Your task to perform on an android device: change the clock display to show seconds Image 0: 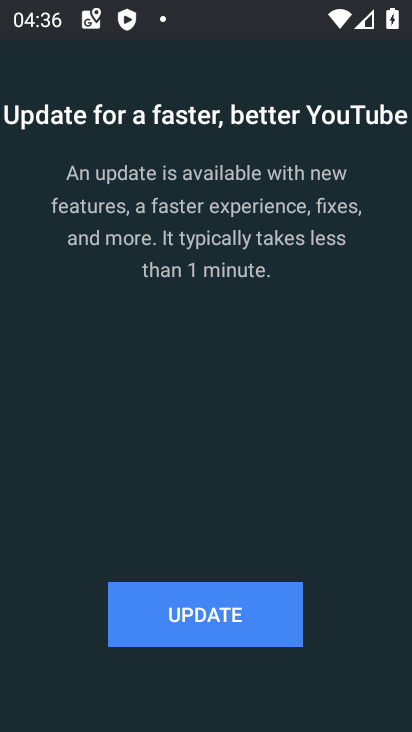
Step 0: press home button
Your task to perform on an android device: change the clock display to show seconds Image 1: 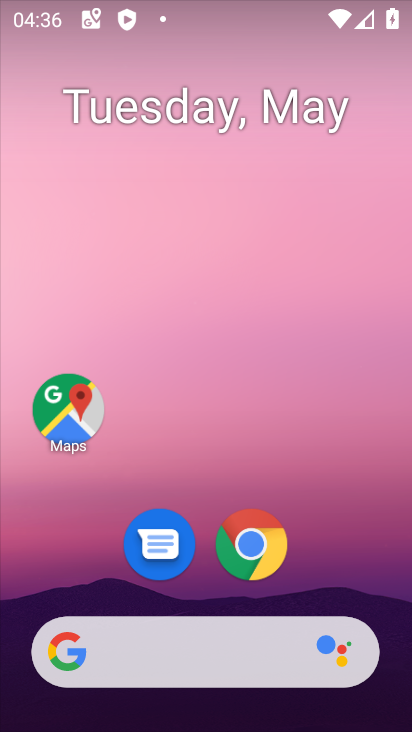
Step 1: drag from (193, 623) to (237, 231)
Your task to perform on an android device: change the clock display to show seconds Image 2: 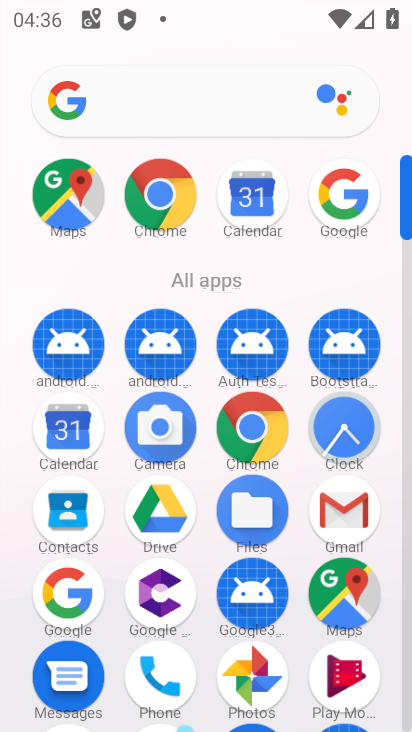
Step 2: click (342, 428)
Your task to perform on an android device: change the clock display to show seconds Image 3: 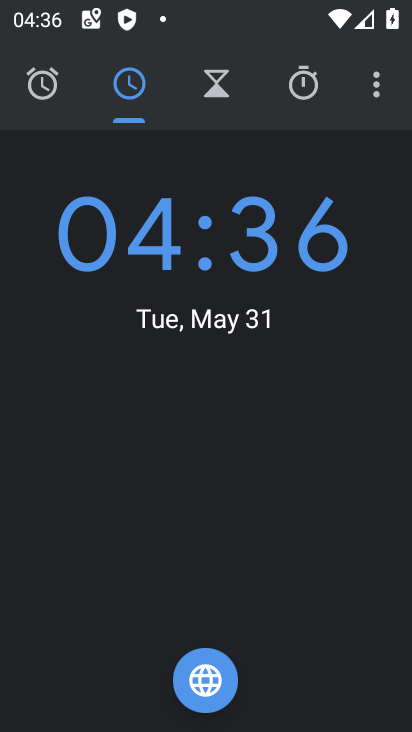
Step 3: click (382, 78)
Your task to perform on an android device: change the clock display to show seconds Image 4: 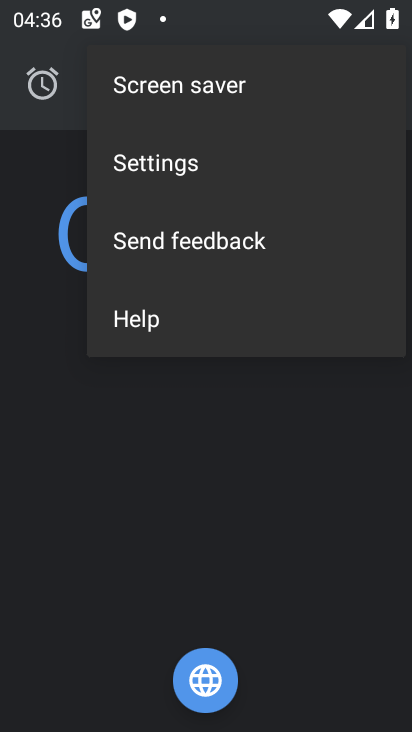
Step 4: click (167, 160)
Your task to perform on an android device: change the clock display to show seconds Image 5: 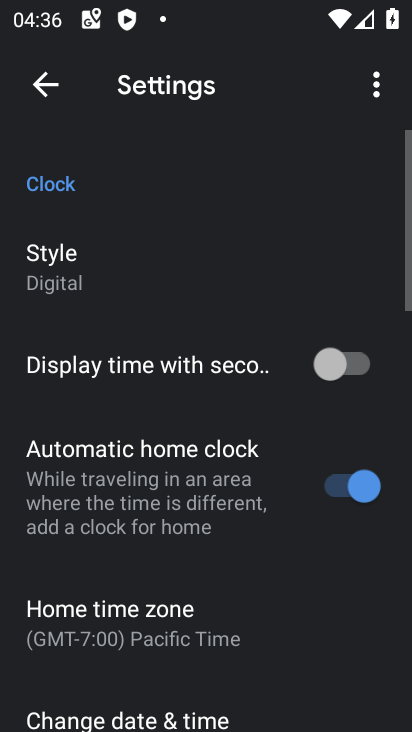
Step 5: click (41, 275)
Your task to perform on an android device: change the clock display to show seconds Image 6: 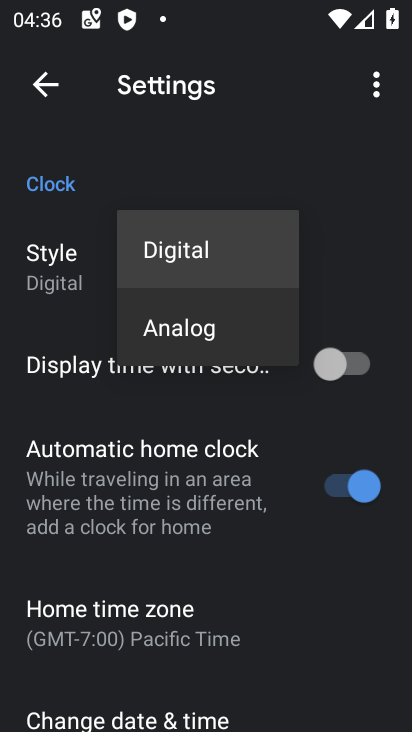
Step 6: click (348, 371)
Your task to perform on an android device: change the clock display to show seconds Image 7: 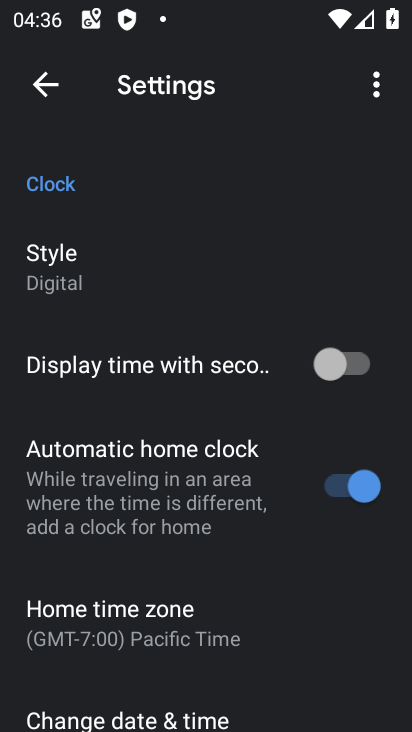
Step 7: click (367, 362)
Your task to perform on an android device: change the clock display to show seconds Image 8: 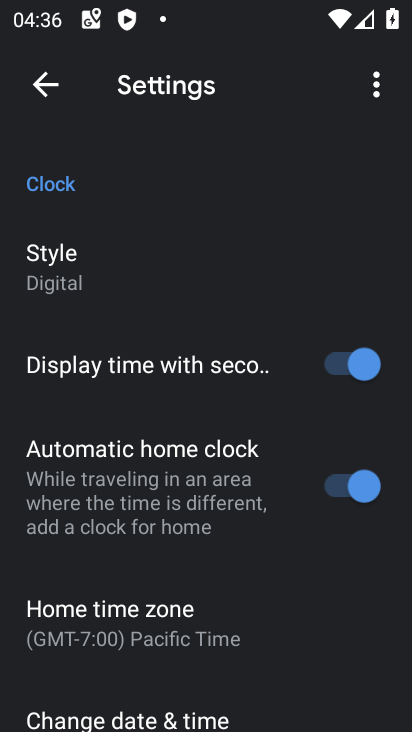
Step 8: task complete